Your task to perform on an android device: Toggle the flashlight Image 0: 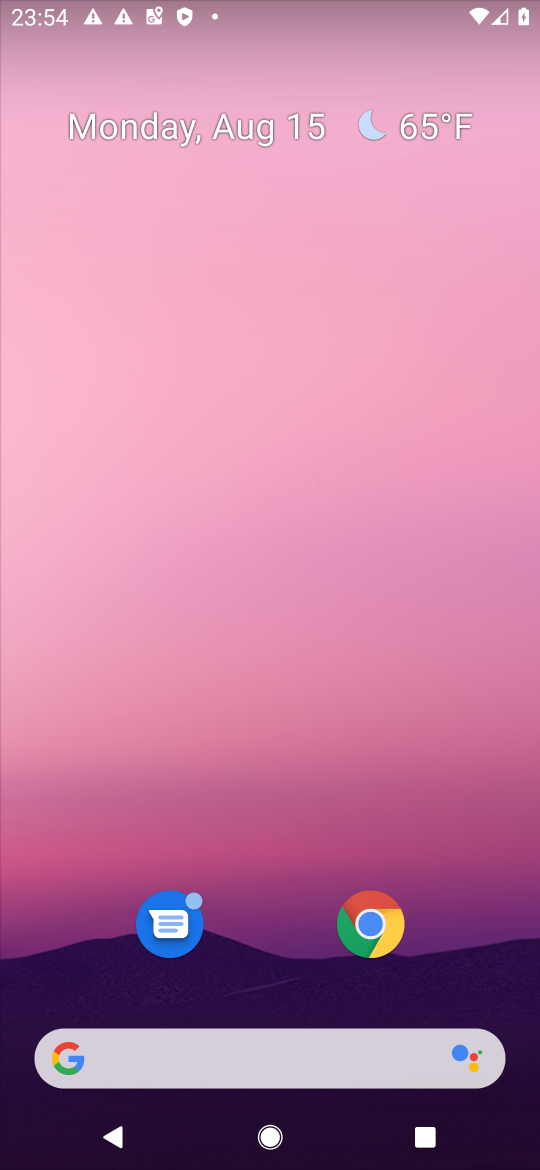
Step 0: drag from (411, 16) to (398, 657)
Your task to perform on an android device: Toggle the flashlight Image 1: 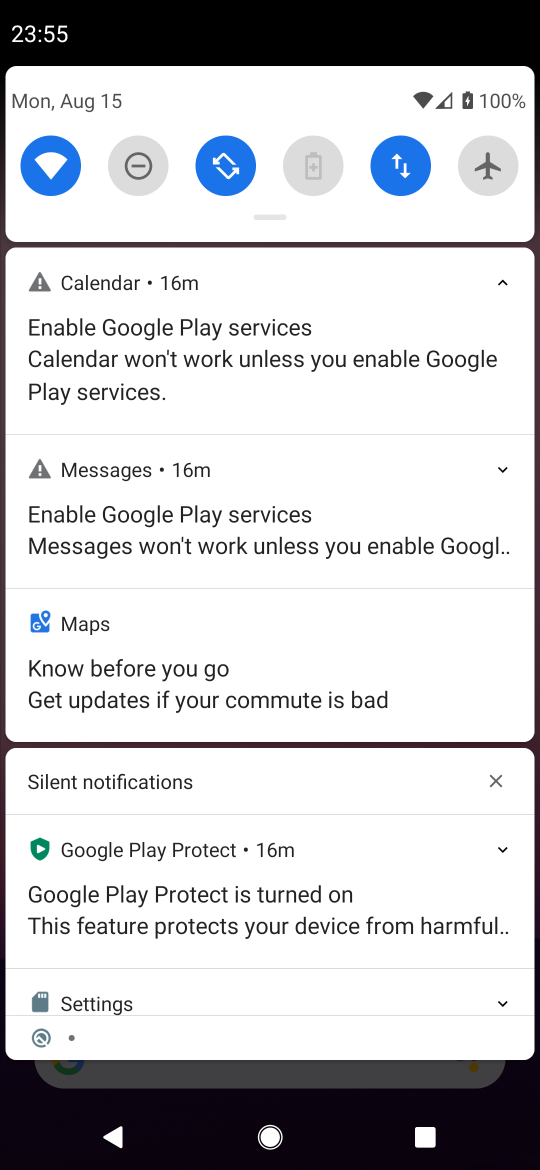
Step 1: drag from (366, 206) to (324, 970)
Your task to perform on an android device: Toggle the flashlight Image 2: 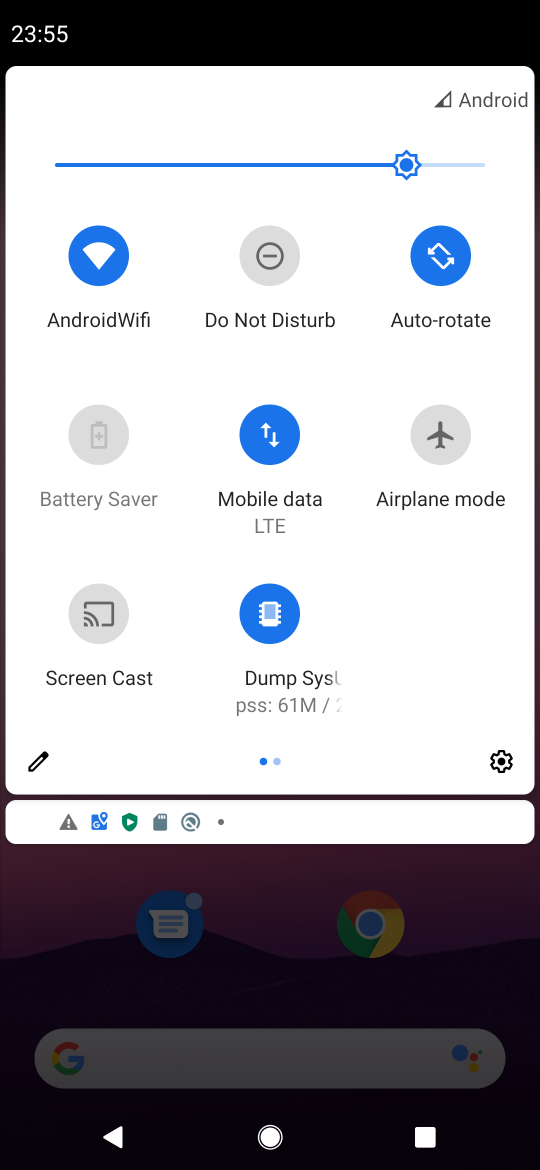
Step 2: click (43, 764)
Your task to perform on an android device: Toggle the flashlight Image 3: 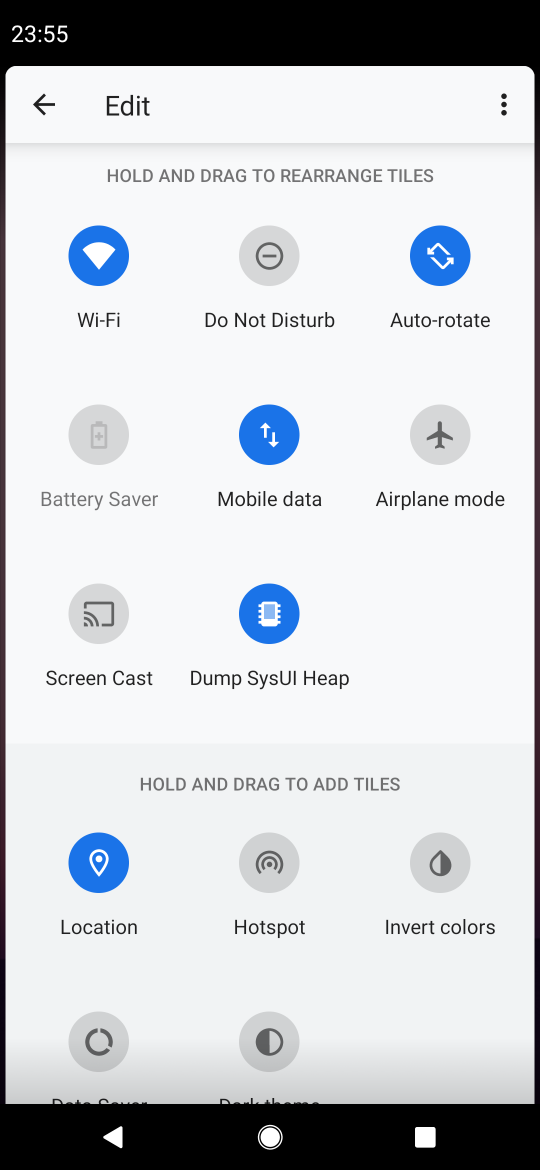
Step 3: task complete